Your task to perform on an android device: Open my contact list Image 0: 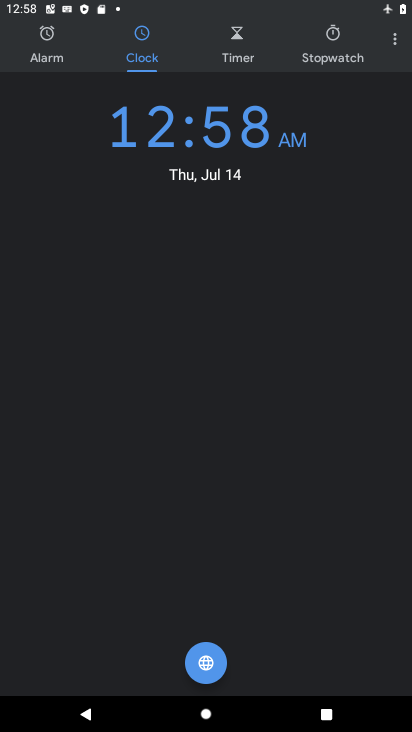
Step 0: press home button
Your task to perform on an android device: Open my contact list Image 1: 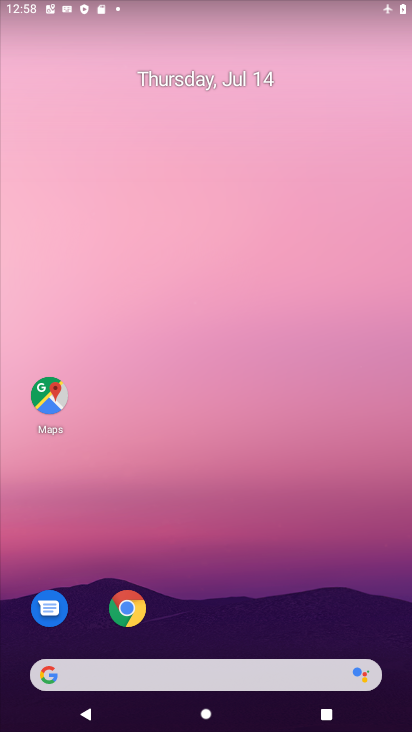
Step 1: drag from (389, 624) to (333, 208)
Your task to perform on an android device: Open my contact list Image 2: 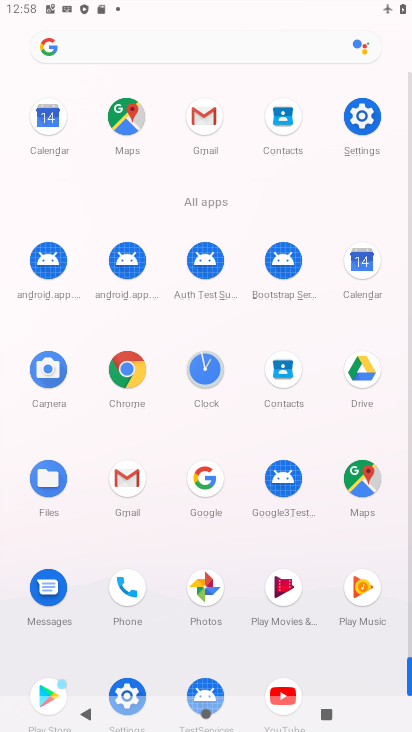
Step 2: click (281, 368)
Your task to perform on an android device: Open my contact list Image 3: 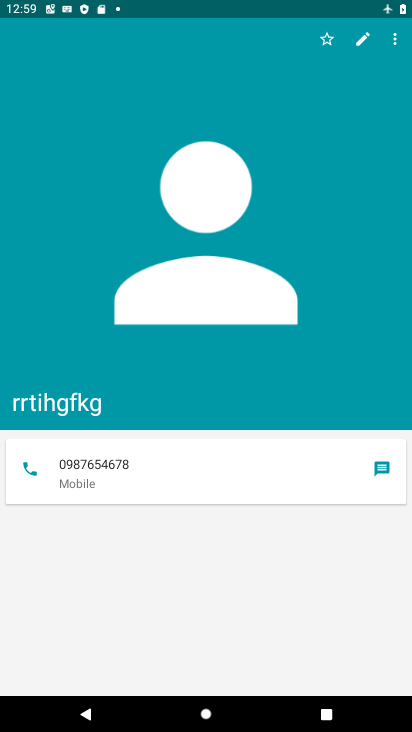
Step 3: task complete